Your task to perform on an android device: turn on wifi Image 0: 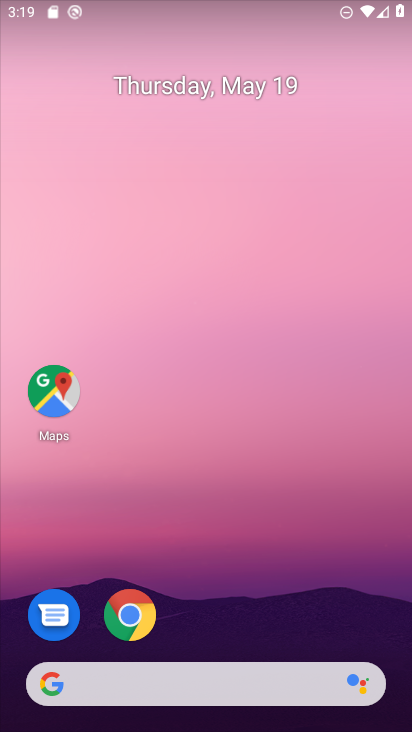
Step 0: drag from (299, 591) to (258, 235)
Your task to perform on an android device: turn on wifi Image 1: 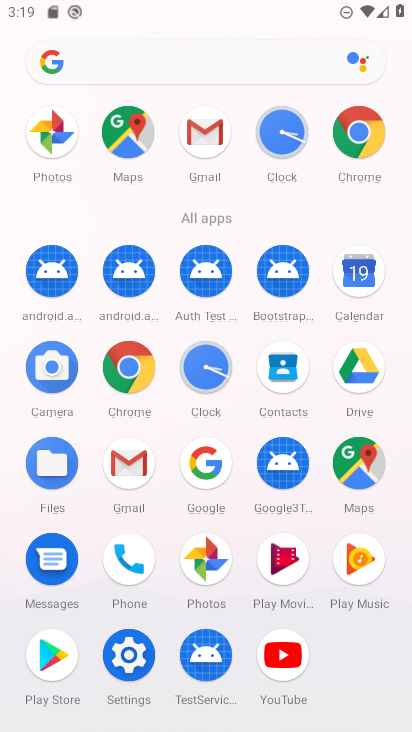
Step 1: click (131, 669)
Your task to perform on an android device: turn on wifi Image 2: 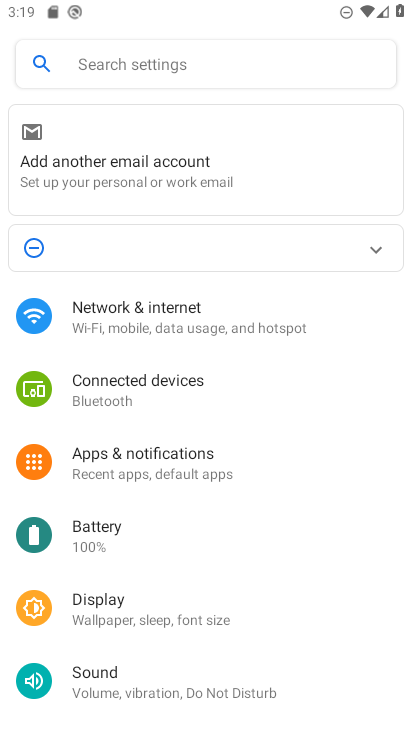
Step 2: click (81, 284)
Your task to perform on an android device: turn on wifi Image 3: 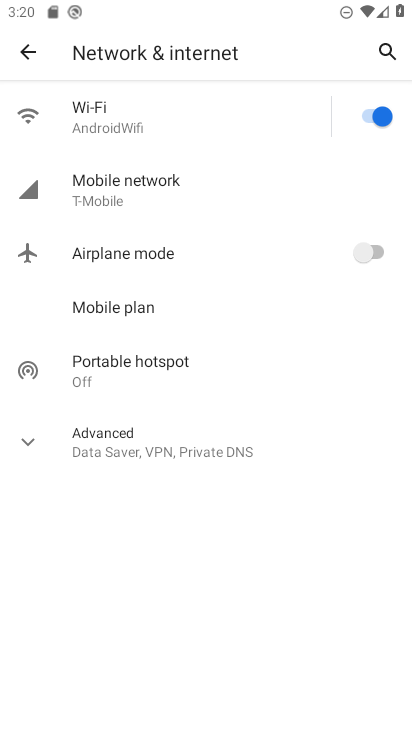
Step 3: task complete